Your task to perform on an android device: See recent photos Image 0: 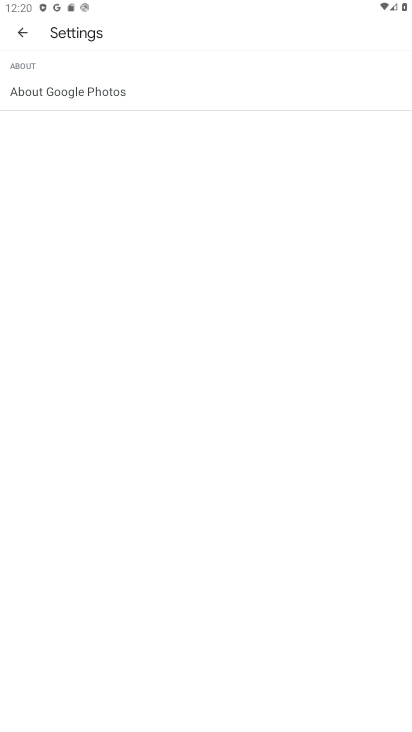
Step 0: press home button
Your task to perform on an android device: See recent photos Image 1: 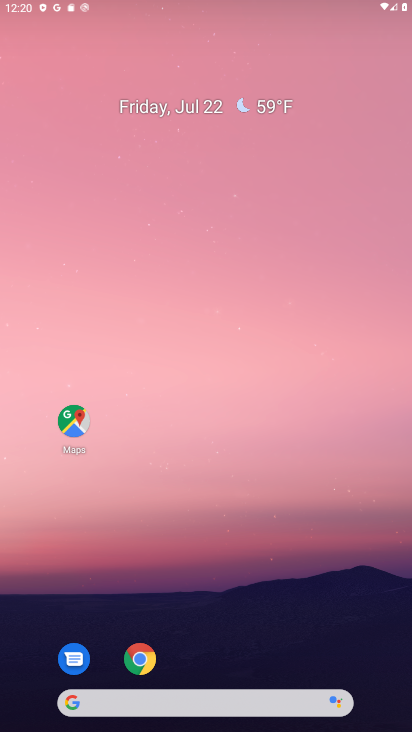
Step 1: drag from (334, 636) to (384, 26)
Your task to perform on an android device: See recent photos Image 2: 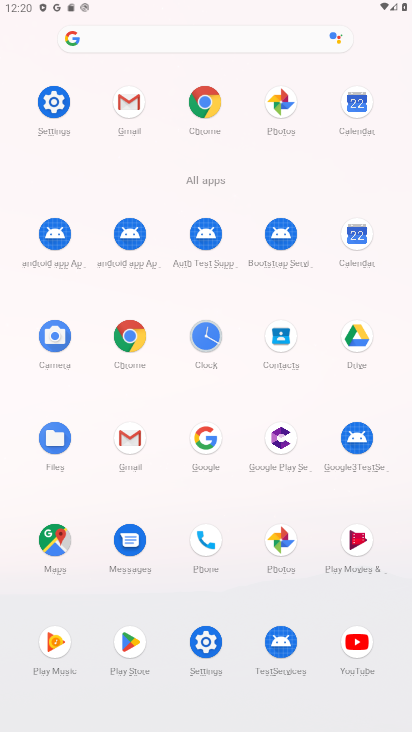
Step 2: click (293, 529)
Your task to perform on an android device: See recent photos Image 3: 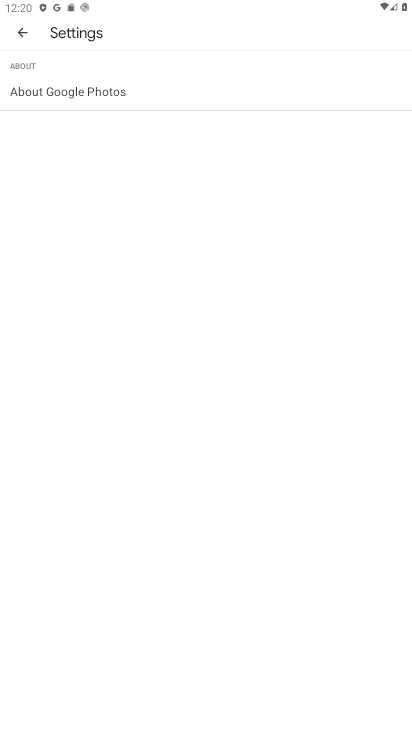
Step 3: click (16, 33)
Your task to perform on an android device: See recent photos Image 4: 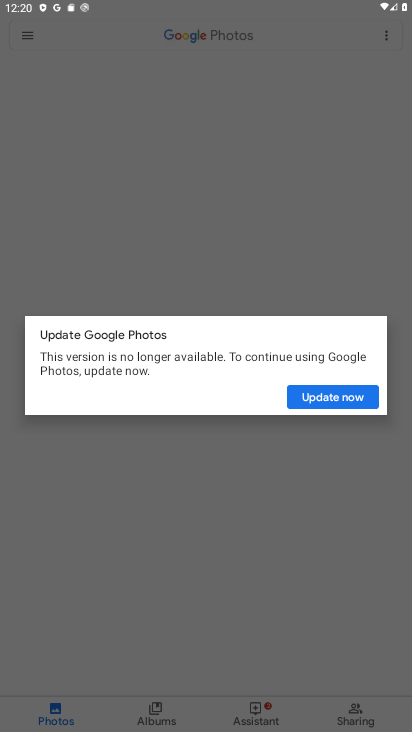
Step 4: click (317, 398)
Your task to perform on an android device: See recent photos Image 5: 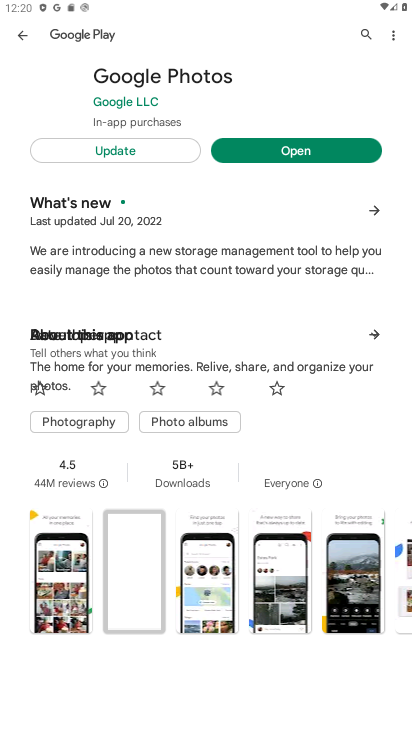
Step 5: click (119, 149)
Your task to perform on an android device: See recent photos Image 6: 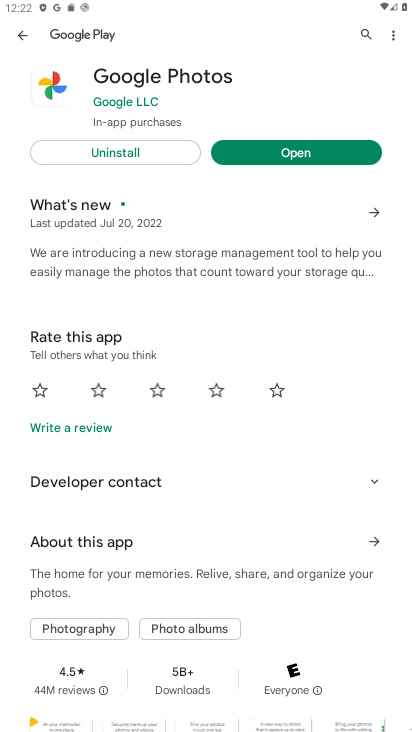
Step 6: click (287, 157)
Your task to perform on an android device: See recent photos Image 7: 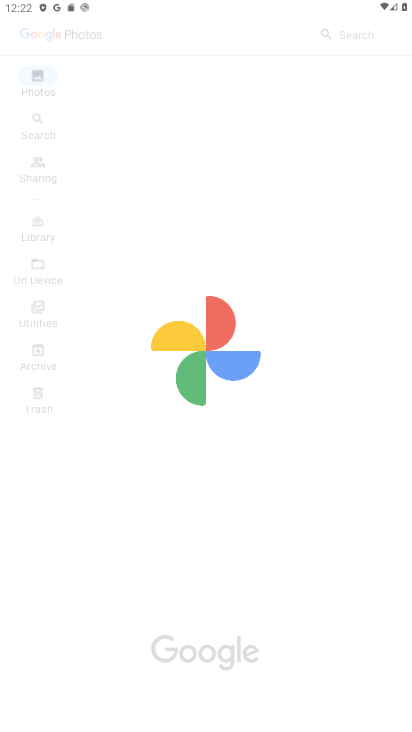
Step 7: task complete